Your task to perform on an android device: toggle location history Image 0: 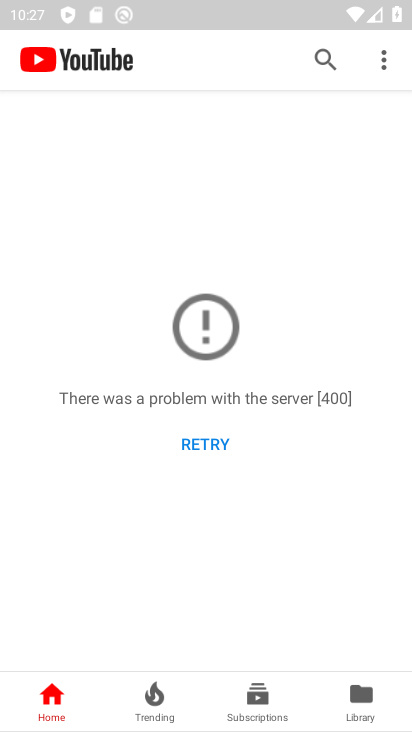
Step 0: press back button
Your task to perform on an android device: toggle location history Image 1: 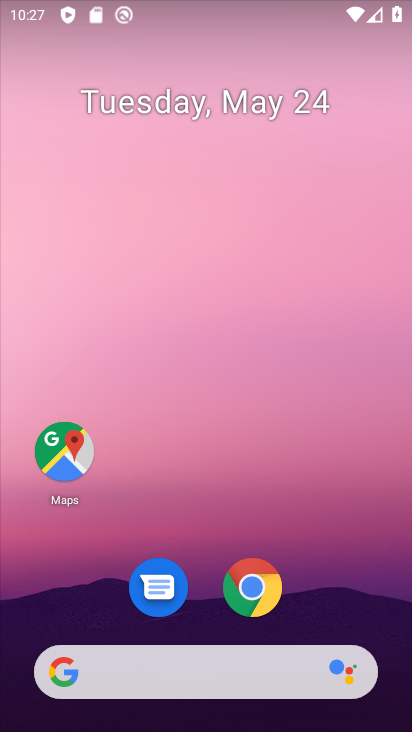
Step 1: drag from (359, 603) to (212, 3)
Your task to perform on an android device: toggle location history Image 2: 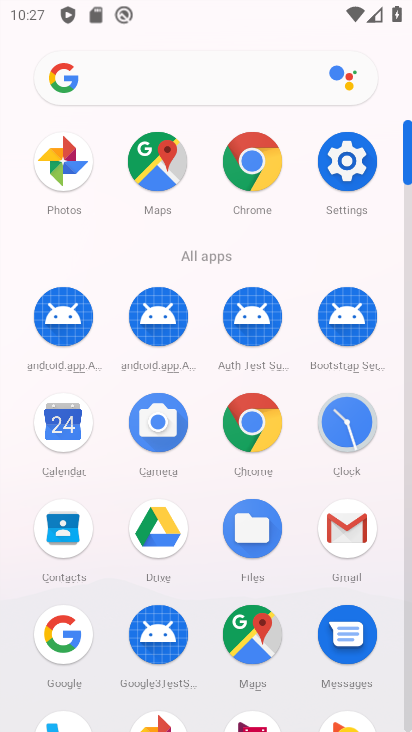
Step 2: drag from (10, 532) to (12, 238)
Your task to perform on an android device: toggle location history Image 3: 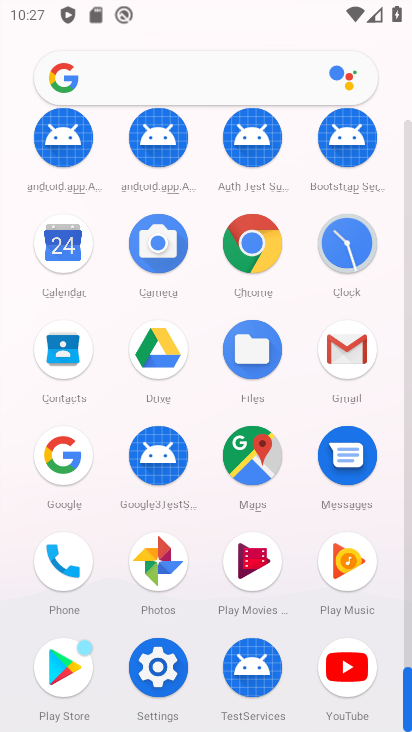
Step 3: click (158, 666)
Your task to perform on an android device: toggle location history Image 4: 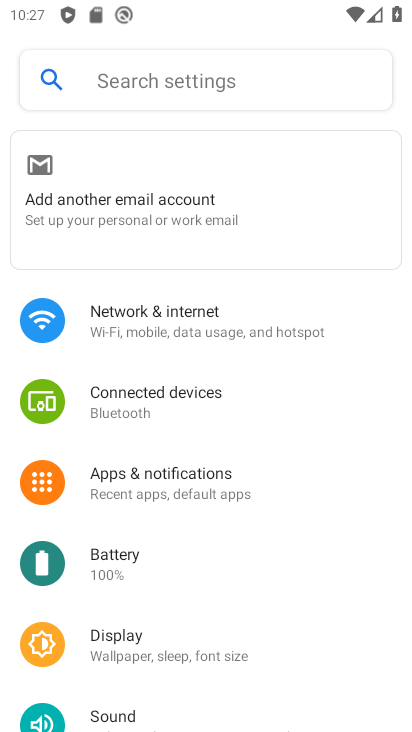
Step 4: drag from (251, 609) to (271, 230)
Your task to perform on an android device: toggle location history Image 5: 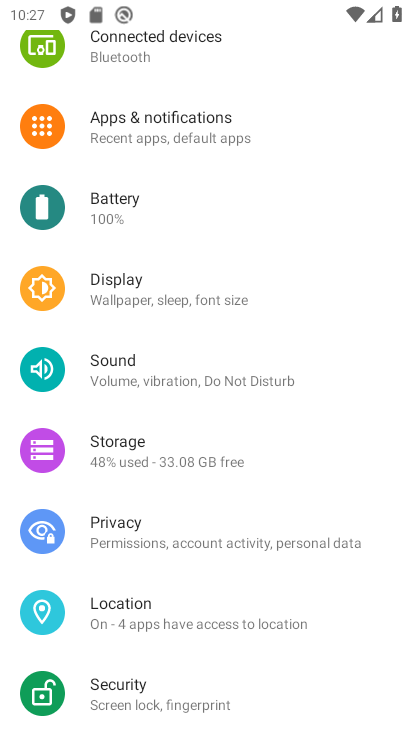
Step 5: click (180, 603)
Your task to perform on an android device: toggle location history Image 6: 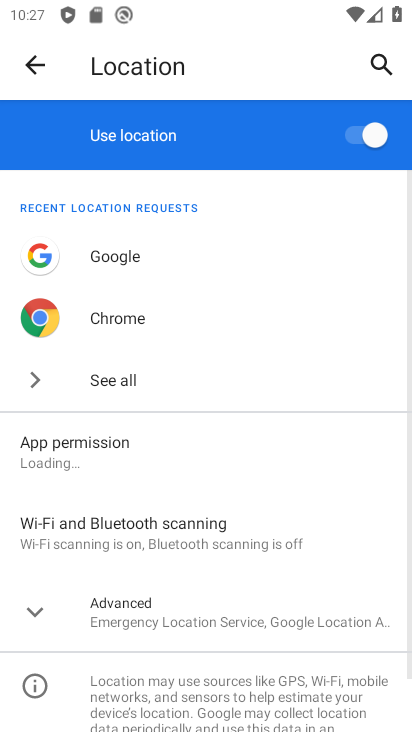
Step 6: click (132, 591)
Your task to perform on an android device: toggle location history Image 7: 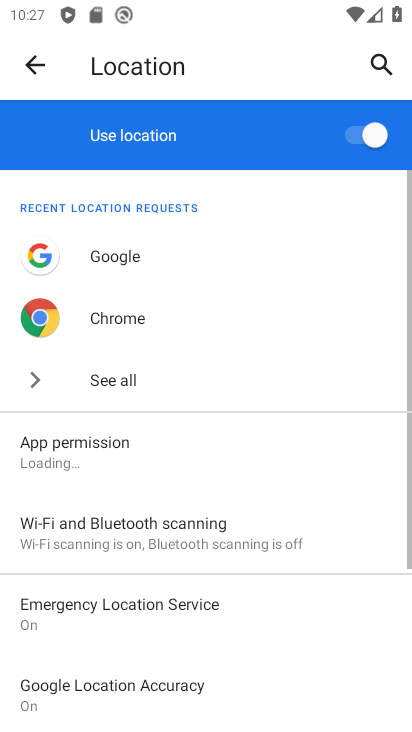
Step 7: drag from (279, 607) to (290, 220)
Your task to perform on an android device: toggle location history Image 8: 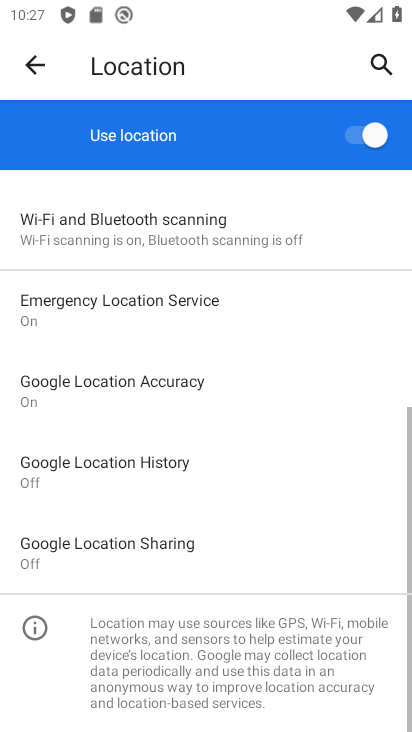
Step 8: click (184, 470)
Your task to perform on an android device: toggle location history Image 9: 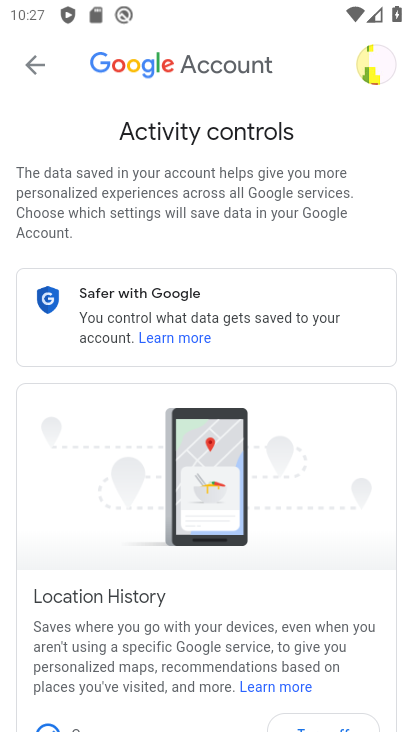
Step 9: drag from (279, 574) to (282, 130)
Your task to perform on an android device: toggle location history Image 10: 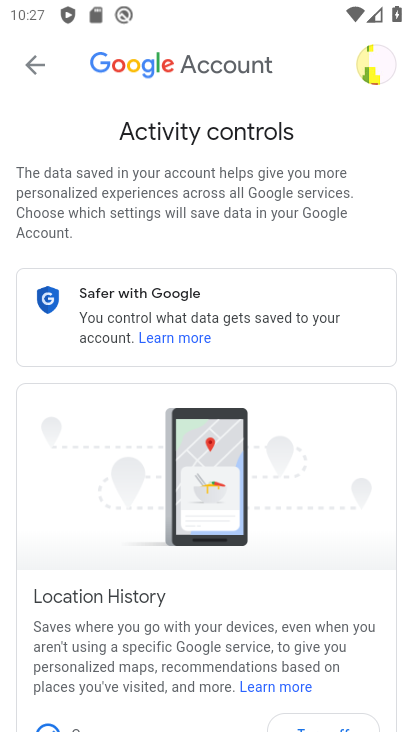
Step 10: drag from (283, 510) to (298, 148)
Your task to perform on an android device: toggle location history Image 11: 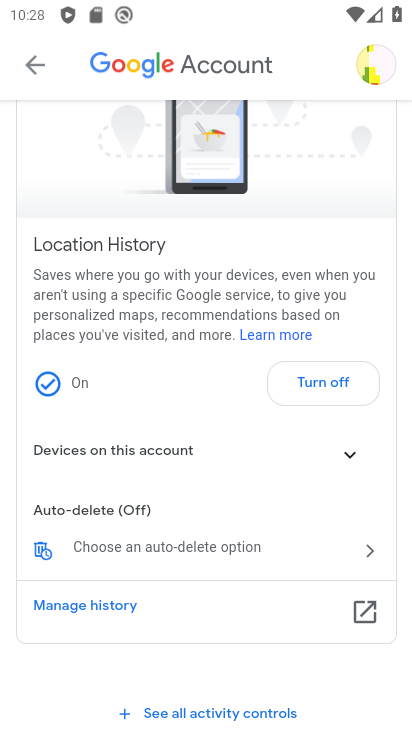
Step 11: click (319, 381)
Your task to perform on an android device: toggle location history Image 12: 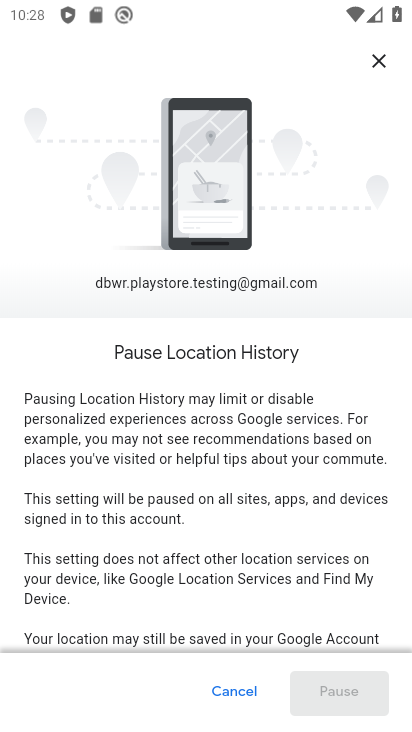
Step 12: drag from (316, 509) to (297, 163)
Your task to perform on an android device: toggle location history Image 13: 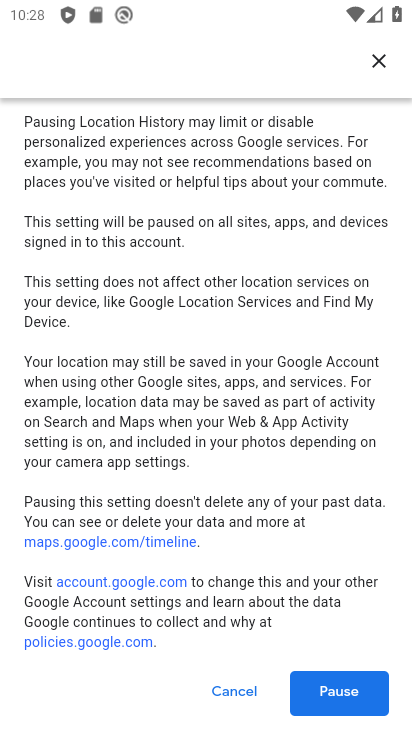
Step 13: drag from (220, 513) to (259, 176)
Your task to perform on an android device: toggle location history Image 14: 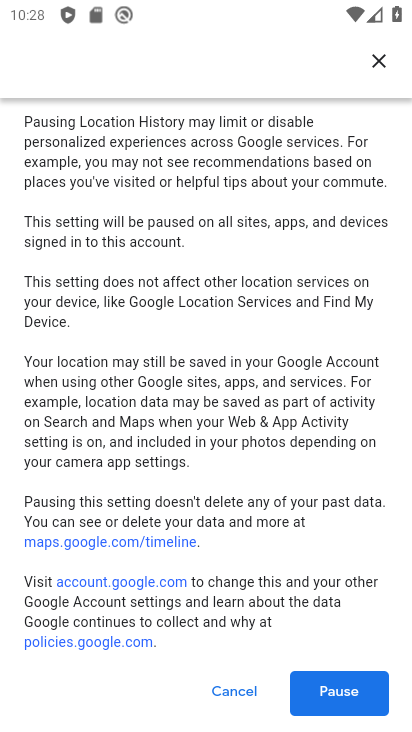
Step 14: click (332, 686)
Your task to perform on an android device: toggle location history Image 15: 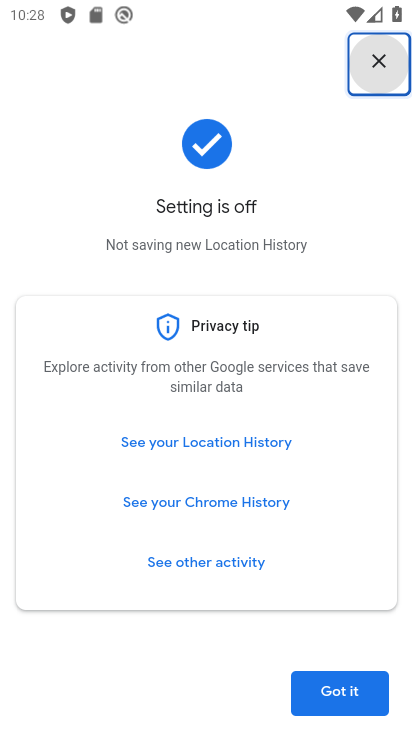
Step 15: task complete